Your task to perform on an android device: visit the assistant section in the google photos Image 0: 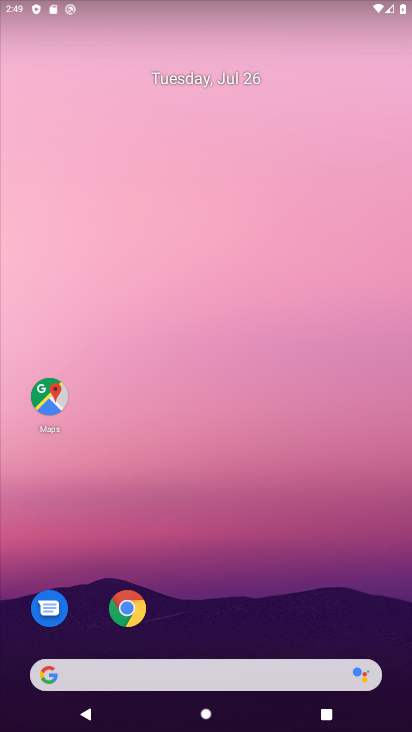
Step 0: drag from (189, 617) to (268, 8)
Your task to perform on an android device: visit the assistant section in the google photos Image 1: 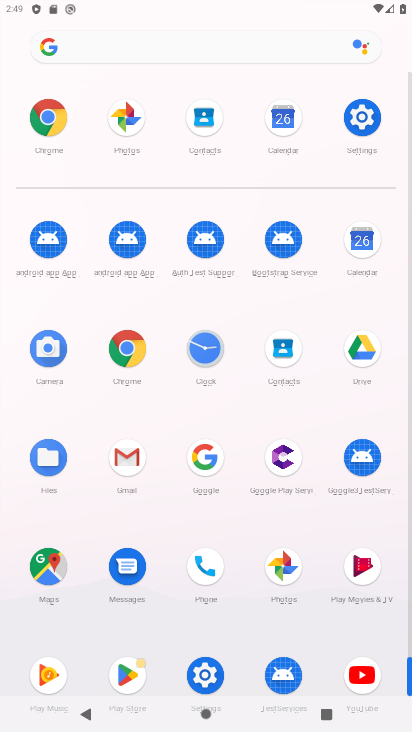
Step 1: click (284, 581)
Your task to perform on an android device: visit the assistant section in the google photos Image 2: 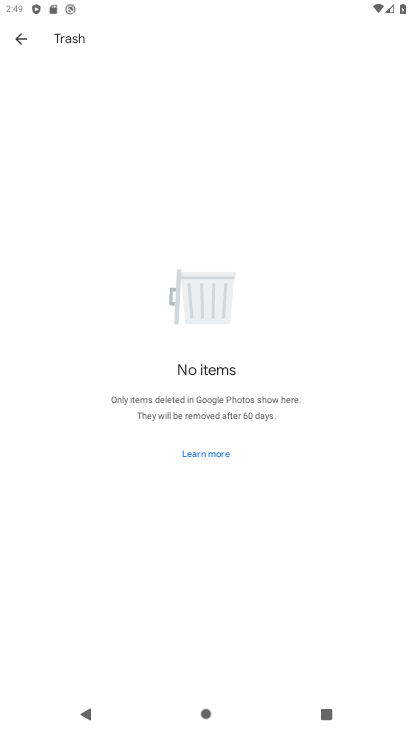
Step 2: click (18, 31)
Your task to perform on an android device: visit the assistant section in the google photos Image 3: 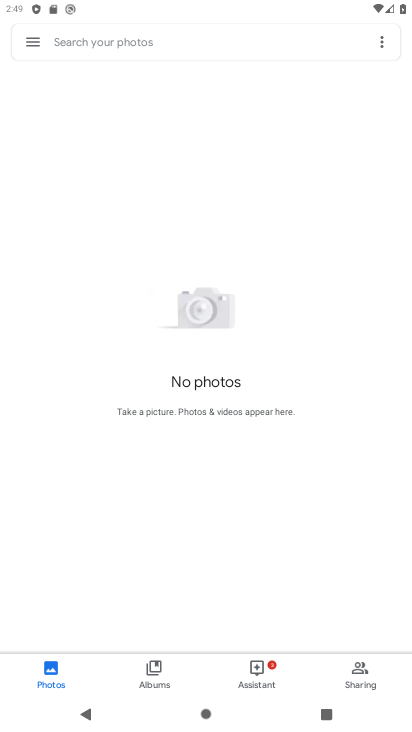
Step 3: click (263, 677)
Your task to perform on an android device: visit the assistant section in the google photos Image 4: 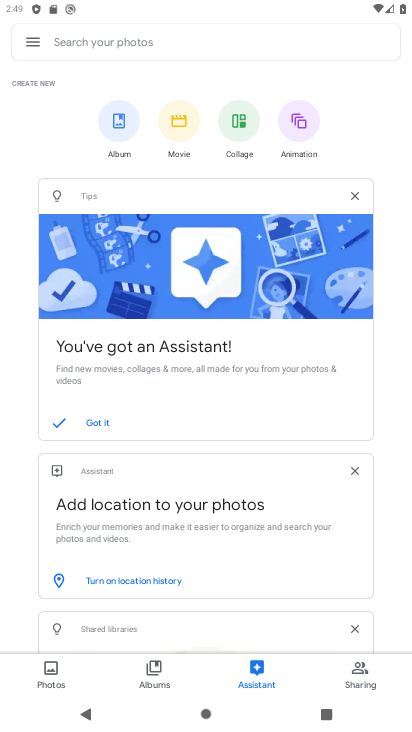
Step 4: task complete